Your task to perform on an android device: allow notifications from all sites in the chrome app Image 0: 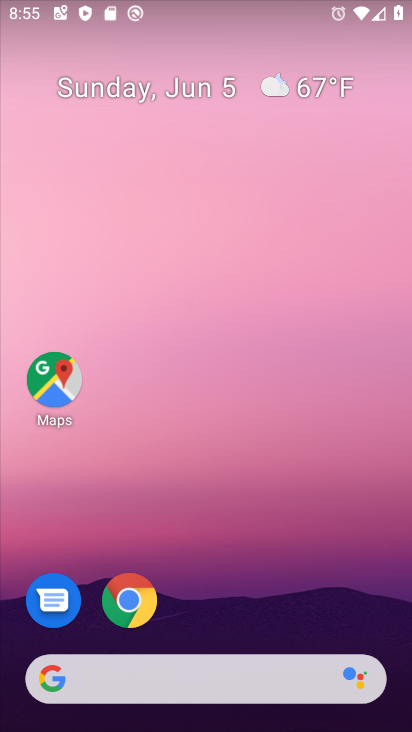
Step 0: drag from (388, 634) to (311, 110)
Your task to perform on an android device: allow notifications from all sites in the chrome app Image 1: 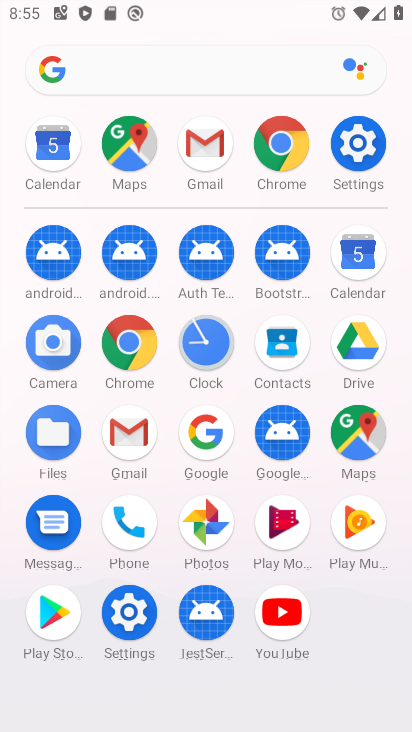
Step 1: click (127, 351)
Your task to perform on an android device: allow notifications from all sites in the chrome app Image 2: 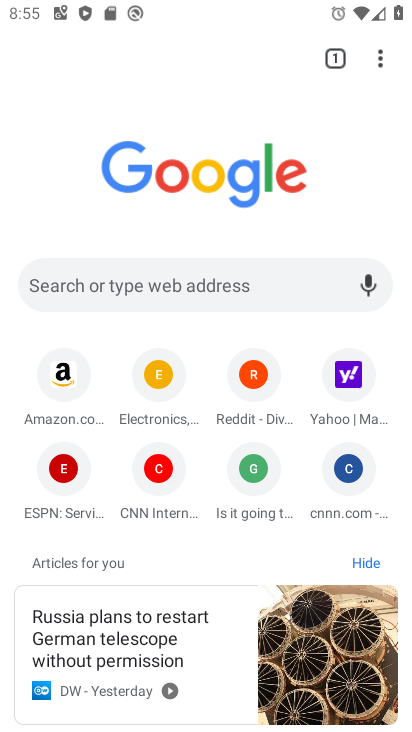
Step 2: click (378, 51)
Your task to perform on an android device: allow notifications from all sites in the chrome app Image 3: 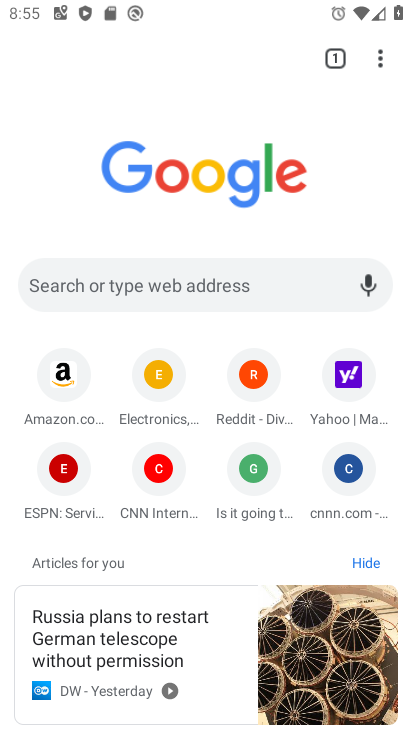
Step 3: click (383, 52)
Your task to perform on an android device: allow notifications from all sites in the chrome app Image 4: 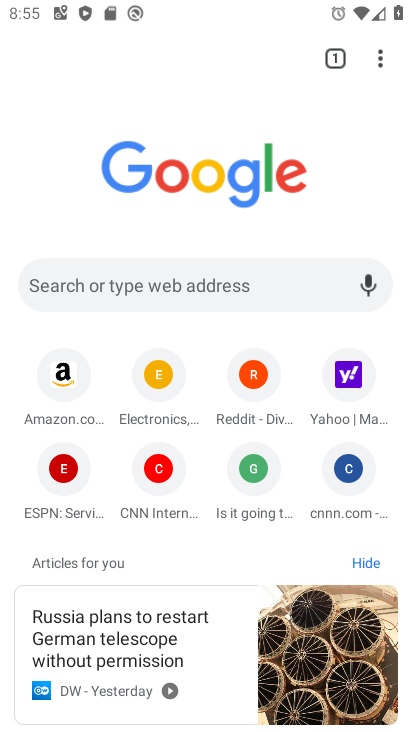
Step 4: click (376, 46)
Your task to perform on an android device: allow notifications from all sites in the chrome app Image 5: 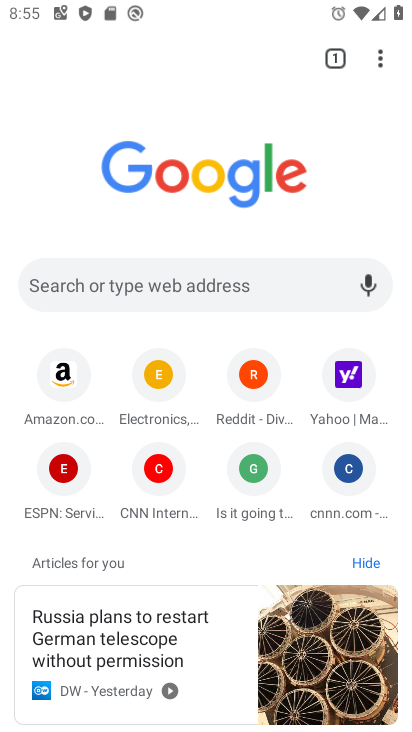
Step 5: click (376, 56)
Your task to perform on an android device: allow notifications from all sites in the chrome app Image 6: 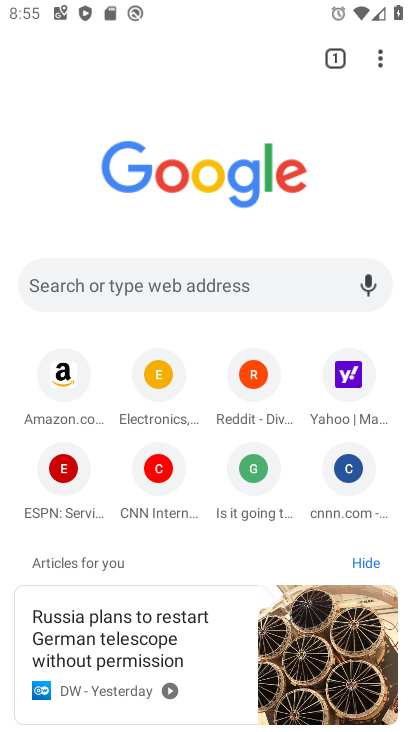
Step 6: click (382, 56)
Your task to perform on an android device: allow notifications from all sites in the chrome app Image 7: 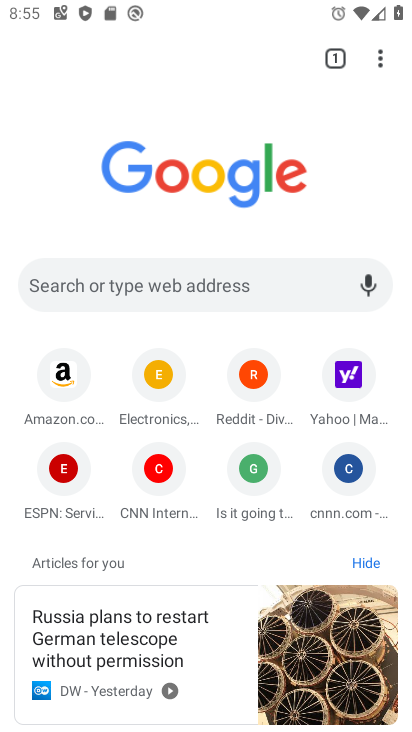
Step 7: click (376, 53)
Your task to perform on an android device: allow notifications from all sites in the chrome app Image 8: 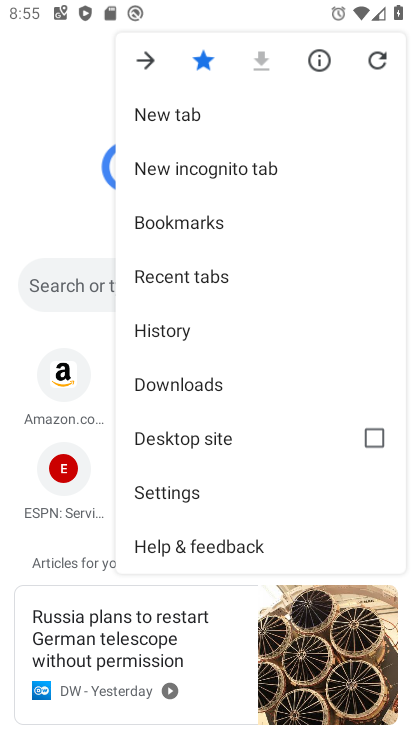
Step 8: click (166, 493)
Your task to perform on an android device: allow notifications from all sites in the chrome app Image 9: 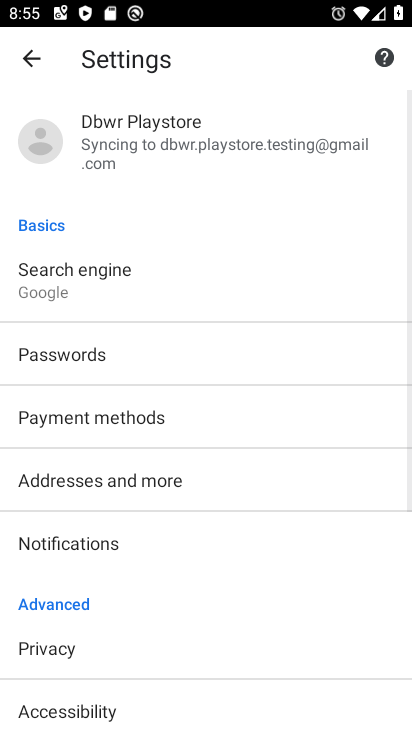
Step 9: click (91, 538)
Your task to perform on an android device: allow notifications from all sites in the chrome app Image 10: 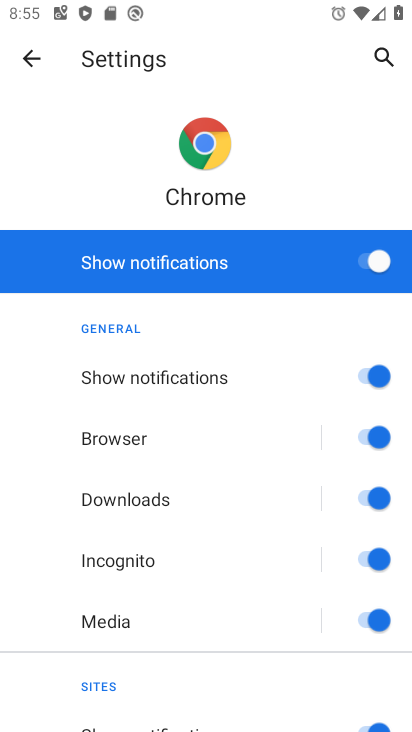
Step 10: task complete